Your task to perform on an android device: Go to sound settings Image 0: 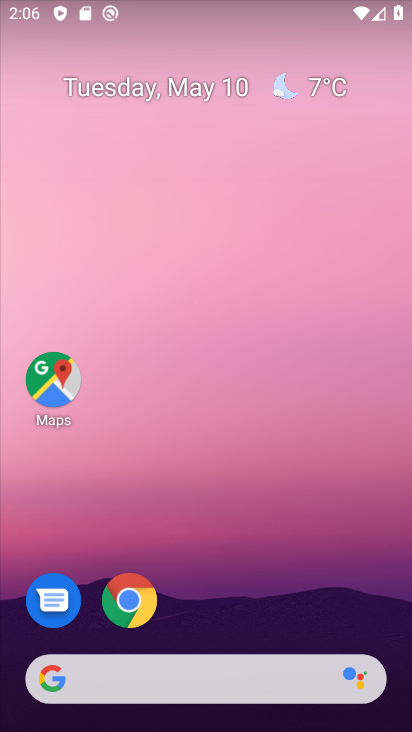
Step 0: click (240, 276)
Your task to perform on an android device: Go to sound settings Image 1: 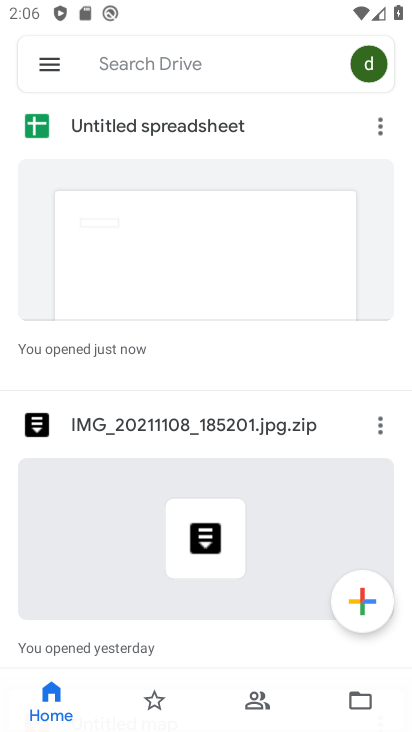
Step 1: press back button
Your task to perform on an android device: Go to sound settings Image 2: 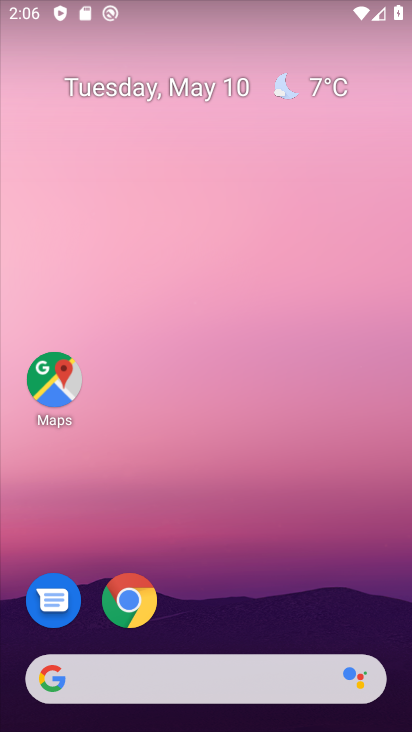
Step 2: drag from (269, 667) to (260, 125)
Your task to perform on an android device: Go to sound settings Image 3: 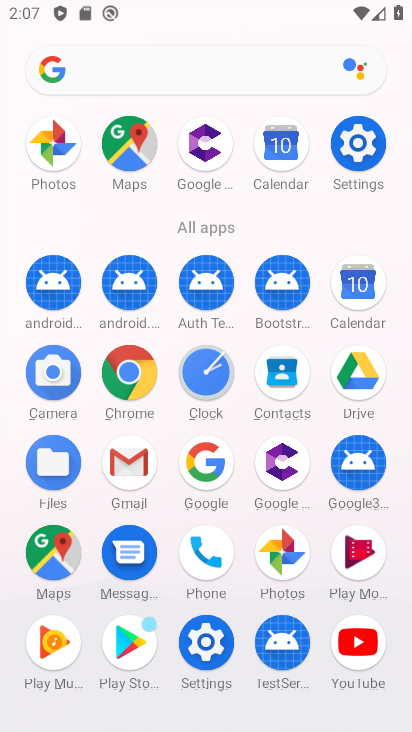
Step 3: click (209, 653)
Your task to perform on an android device: Go to sound settings Image 4: 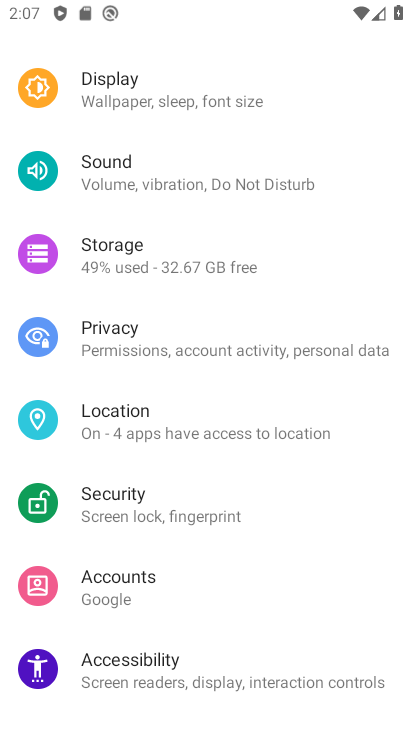
Step 4: click (83, 174)
Your task to perform on an android device: Go to sound settings Image 5: 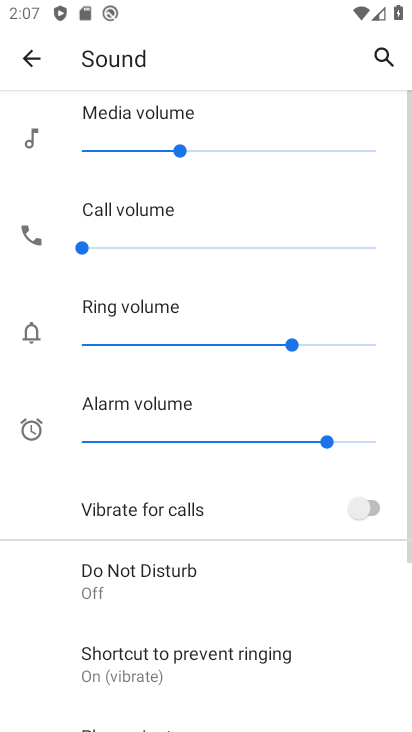
Step 5: task complete